Your task to perform on an android device: Open display settings Image 0: 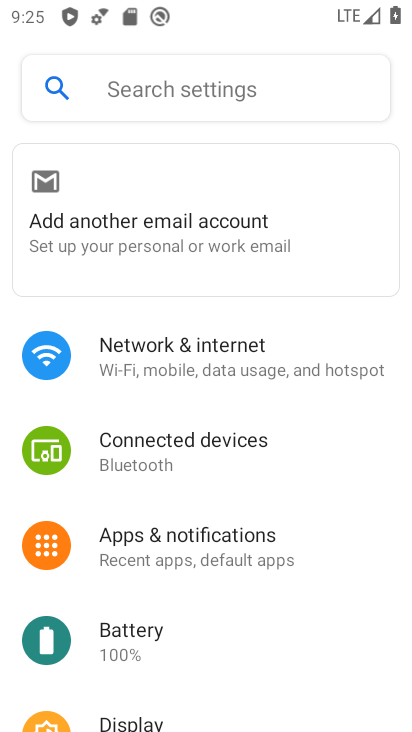
Step 0: drag from (192, 686) to (252, 256)
Your task to perform on an android device: Open display settings Image 1: 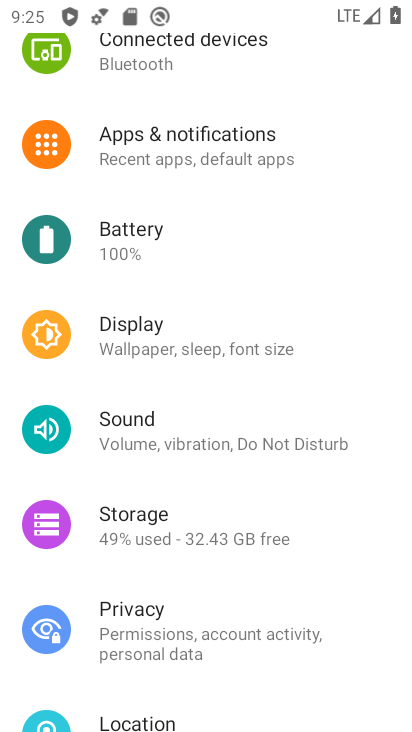
Step 1: click (177, 337)
Your task to perform on an android device: Open display settings Image 2: 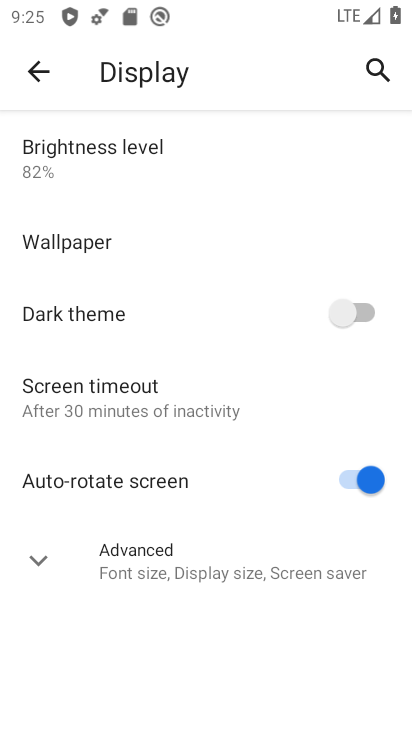
Step 2: task complete